Your task to perform on an android device: Go to Amazon Image 0: 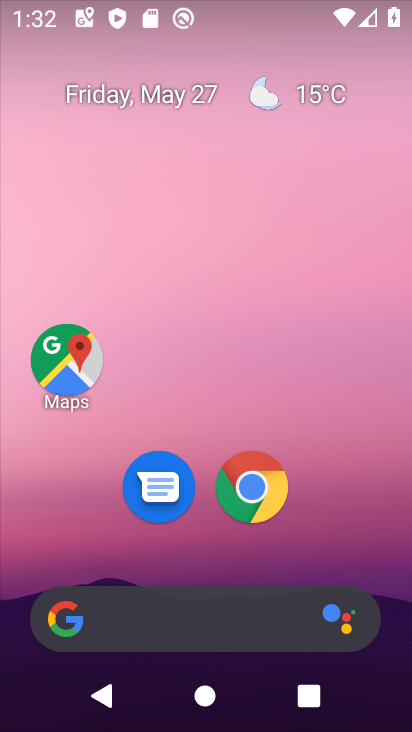
Step 0: click (157, 621)
Your task to perform on an android device: Go to Amazon Image 1: 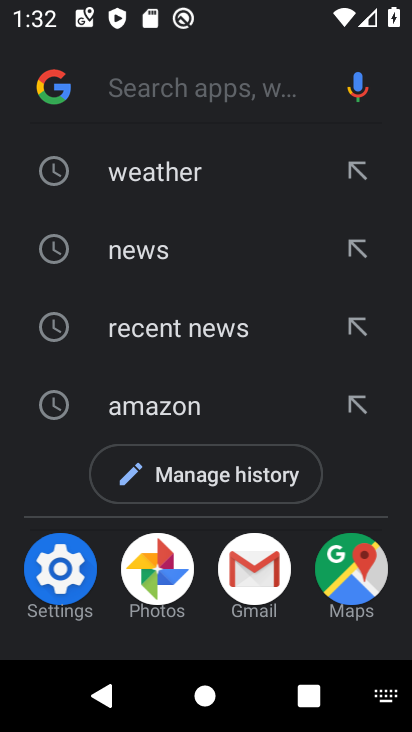
Step 1: click (203, 398)
Your task to perform on an android device: Go to Amazon Image 2: 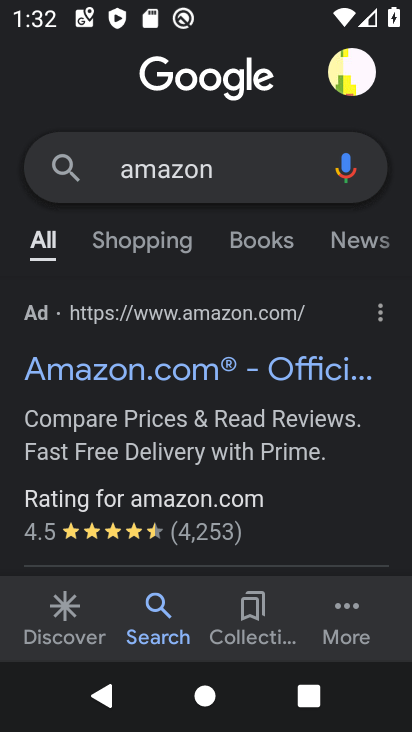
Step 2: click (210, 376)
Your task to perform on an android device: Go to Amazon Image 3: 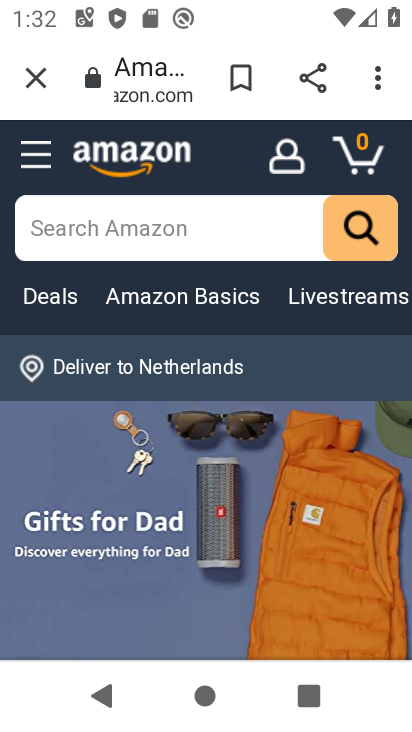
Step 3: task complete